Your task to perform on an android device: Go to network settings Image 0: 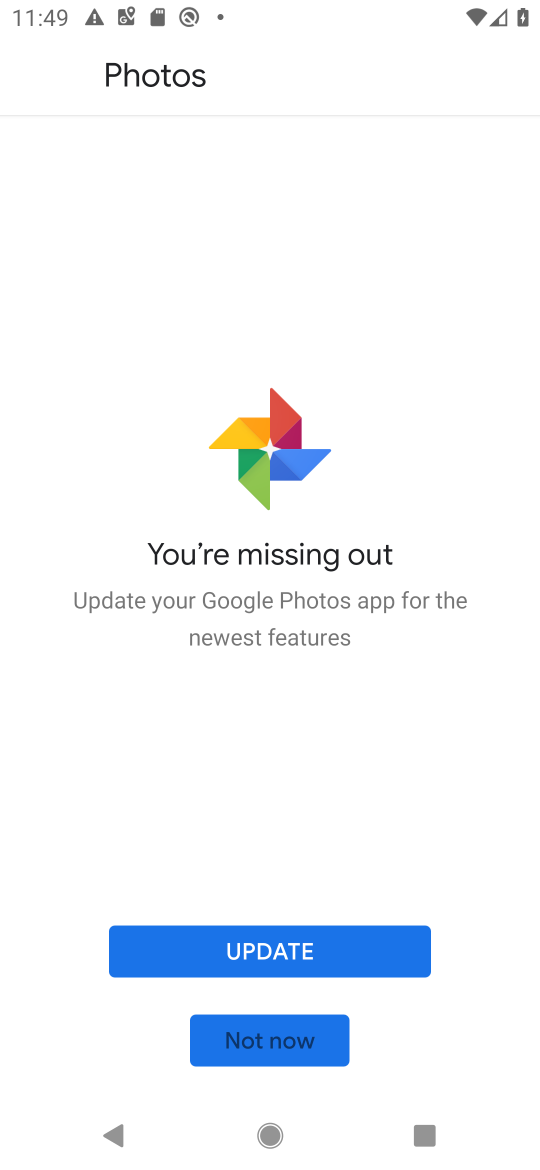
Step 0: press back button
Your task to perform on an android device: Go to network settings Image 1: 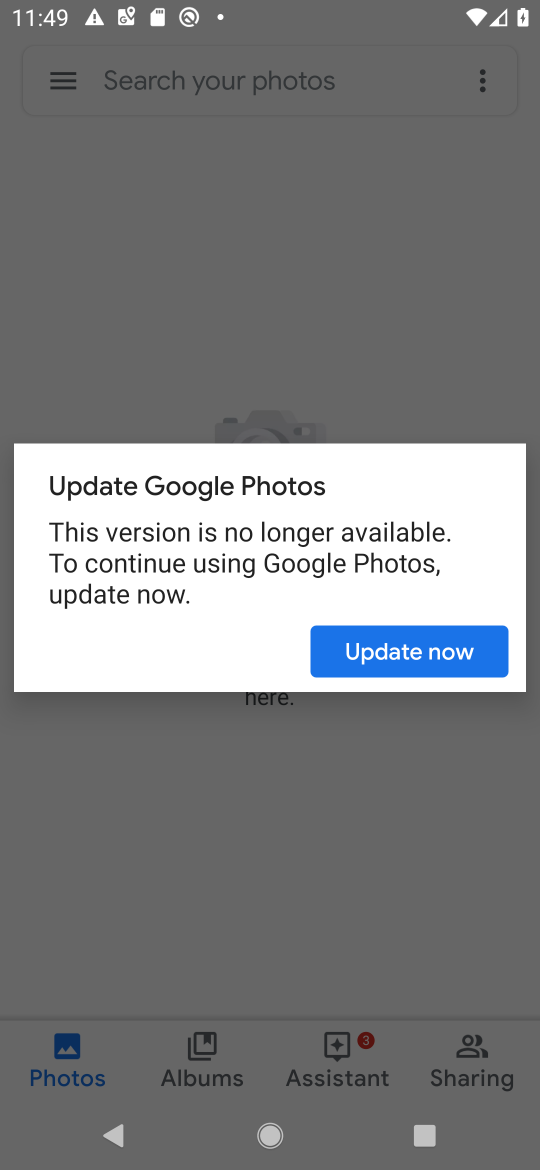
Step 1: press home button
Your task to perform on an android device: Go to network settings Image 2: 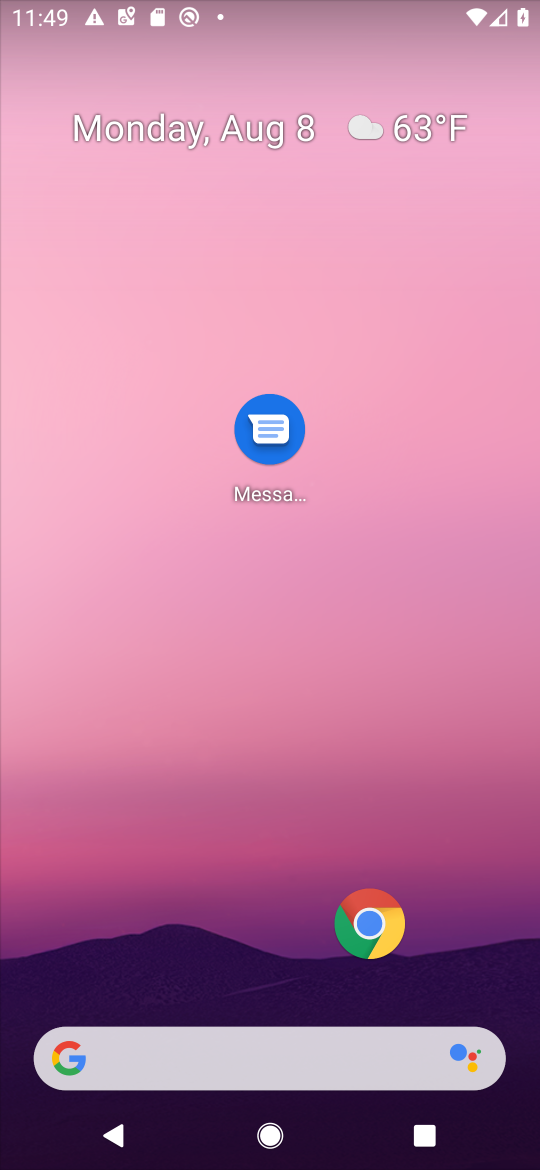
Step 2: drag from (46, 1150) to (299, 226)
Your task to perform on an android device: Go to network settings Image 3: 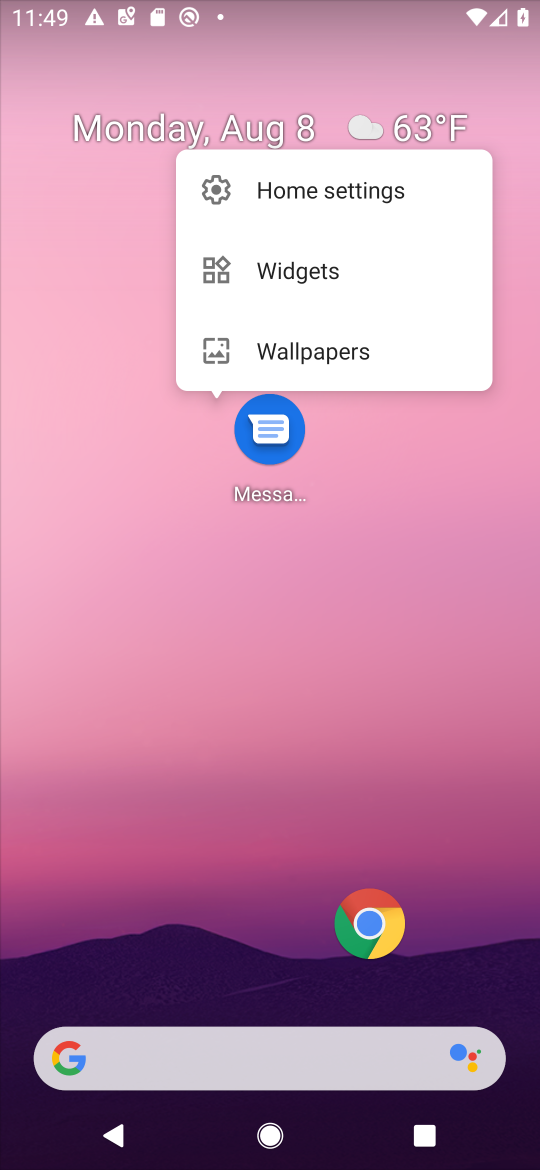
Step 3: drag from (56, 1108) to (136, 411)
Your task to perform on an android device: Go to network settings Image 4: 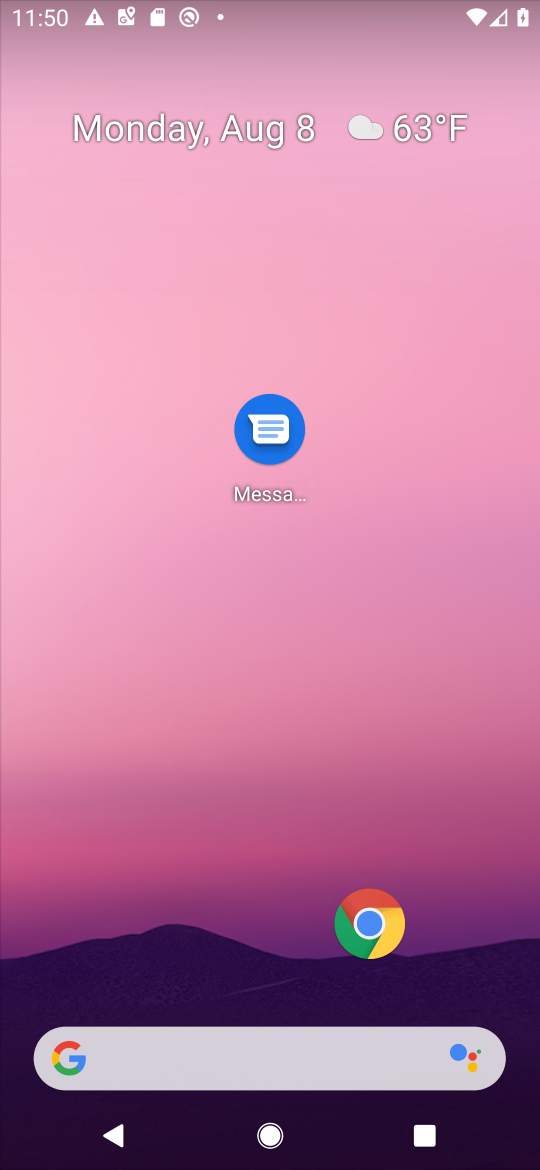
Step 4: drag from (40, 1125) to (136, 342)
Your task to perform on an android device: Go to network settings Image 5: 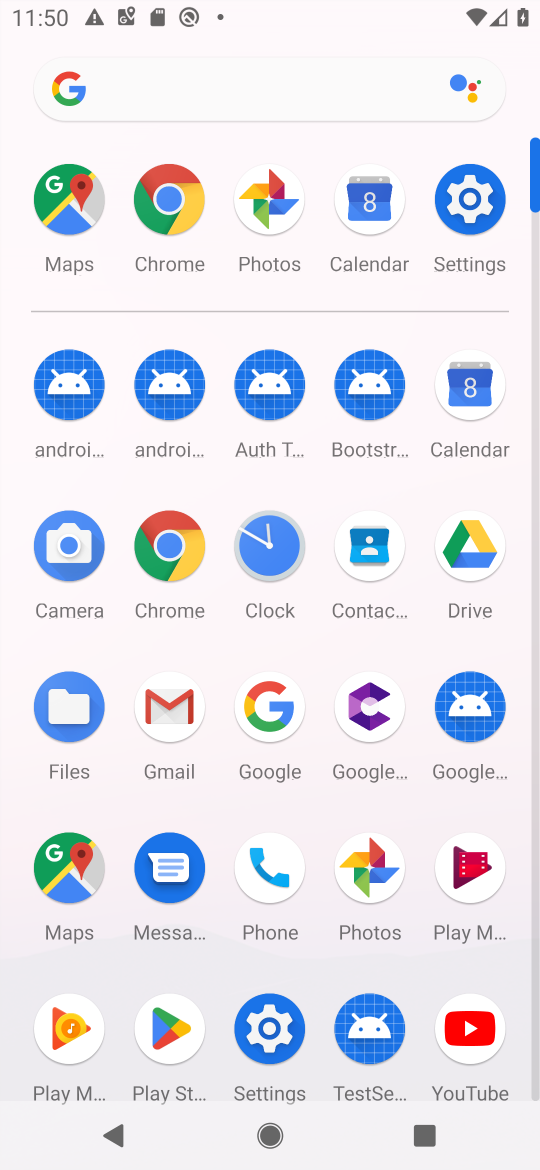
Step 5: click (260, 1045)
Your task to perform on an android device: Go to network settings Image 6: 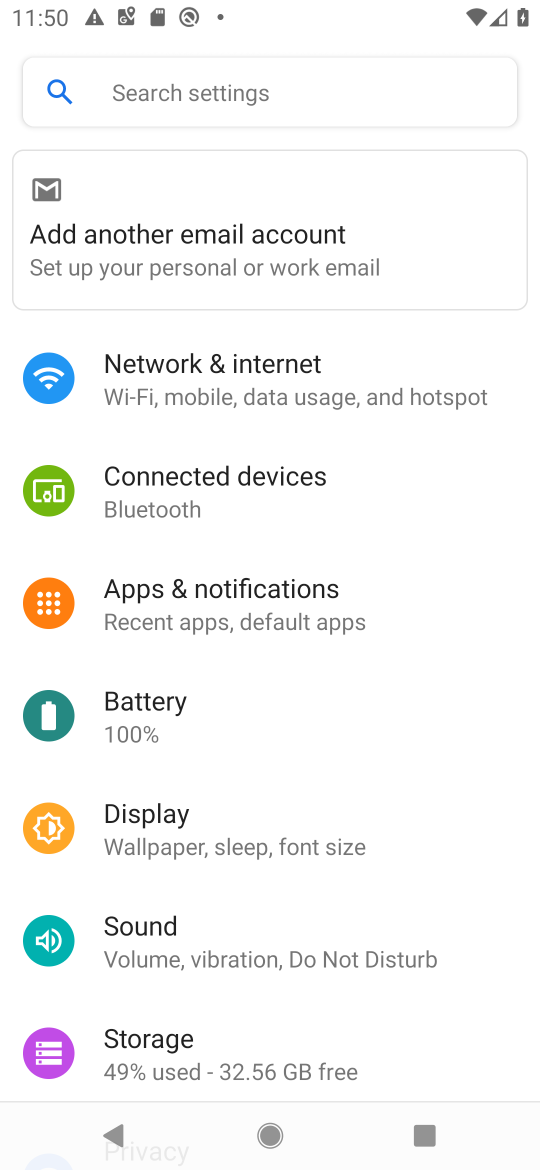
Step 6: click (226, 385)
Your task to perform on an android device: Go to network settings Image 7: 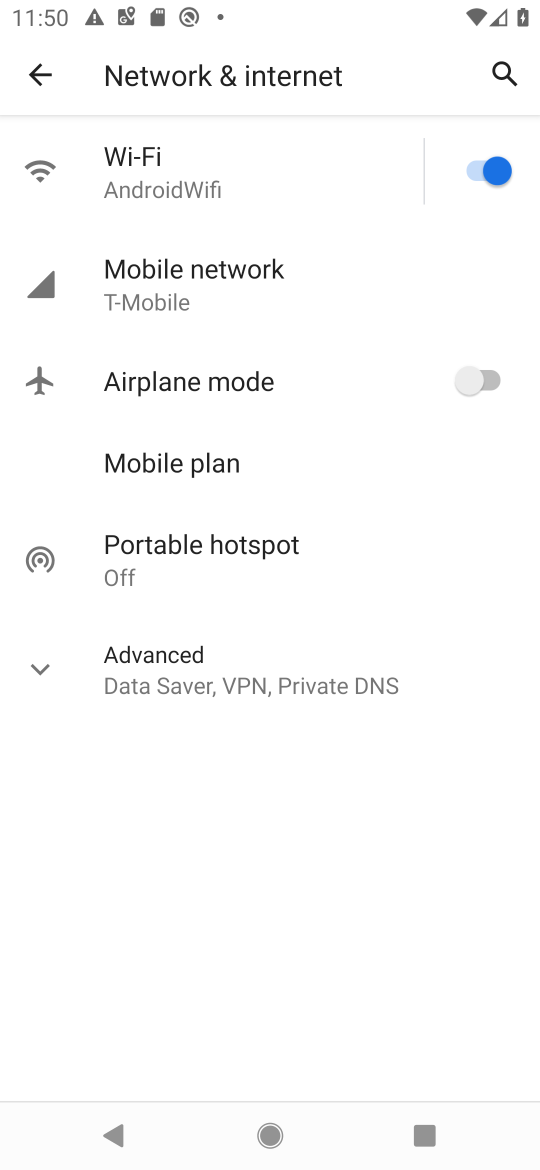
Step 7: click (186, 245)
Your task to perform on an android device: Go to network settings Image 8: 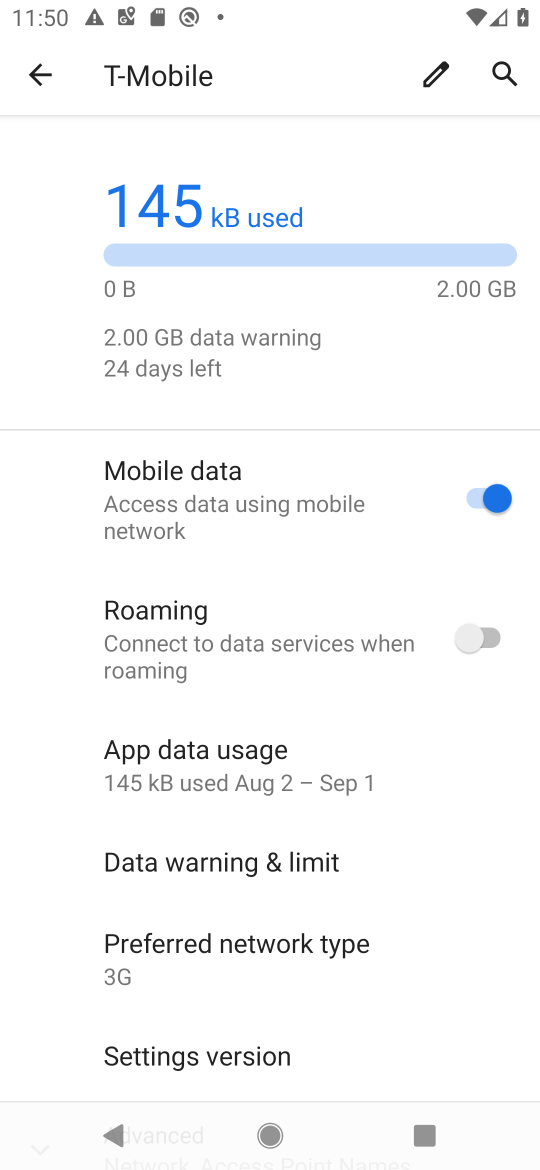
Step 8: task complete